Your task to perform on an android device: find which apps use the phone's location Image 0: 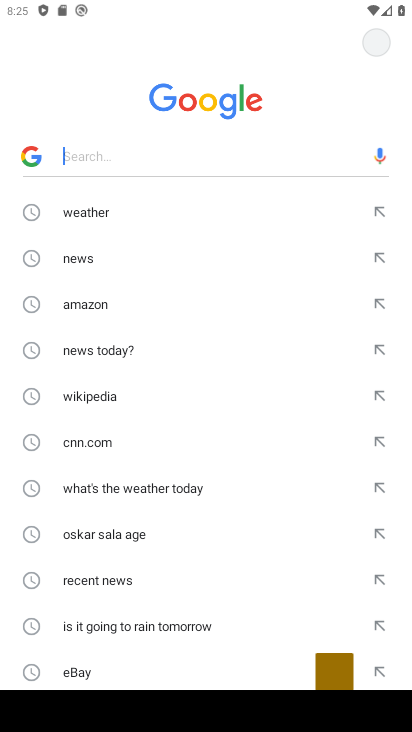
Step 0: press home button
Your task to perform on an android device: find which apps use the phone's location Image 1: 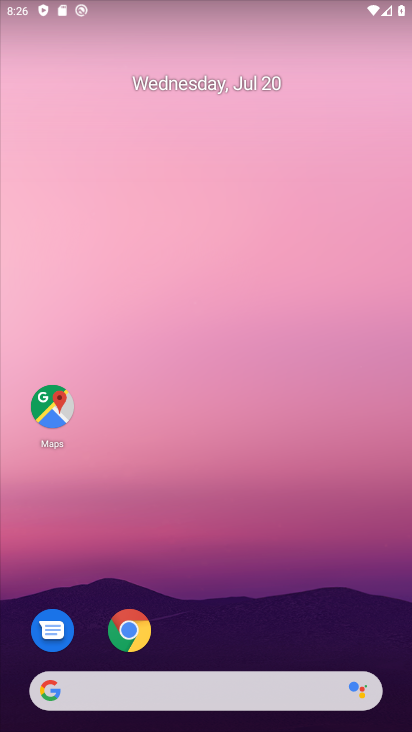
Step 1: drag from (225, 619) to (234, 93)
Your task to perform on an android device: find which apps use the phone's location Image 2: 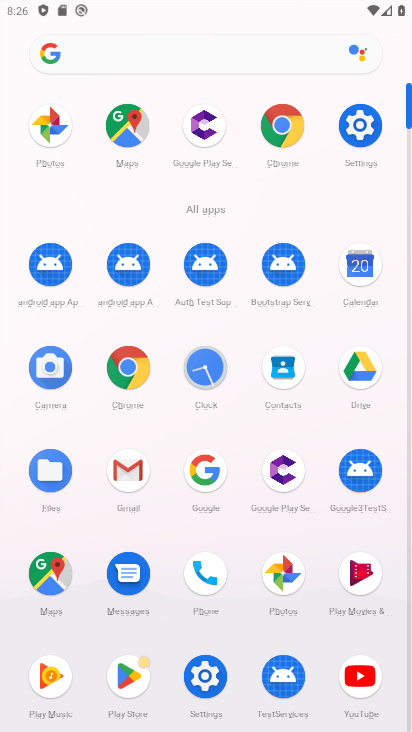
Step 2: click (352, 121)
Your task to perform on an android device: find which apps use the phone's location Image 3: 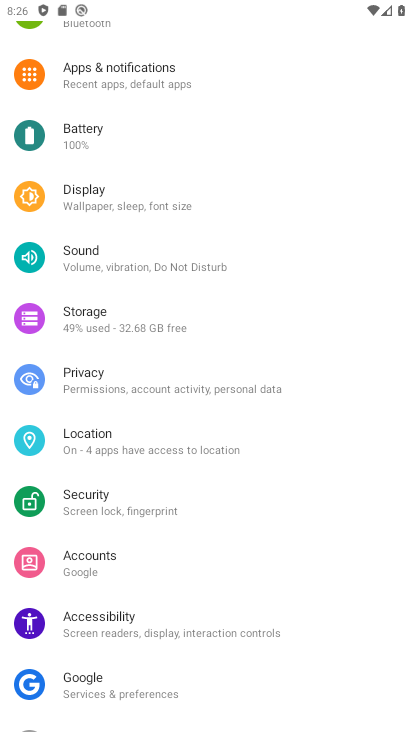
Step 3: click (117, 428)
Your task to perform on an android device: find which apps use the phone's location Image 4: 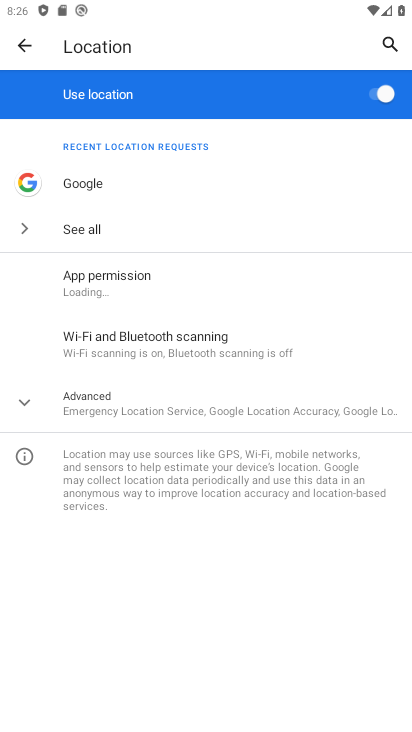
Step 4: click (91, 290)
Your task to perform on an android device: find which apps use the phone's location Image 5: 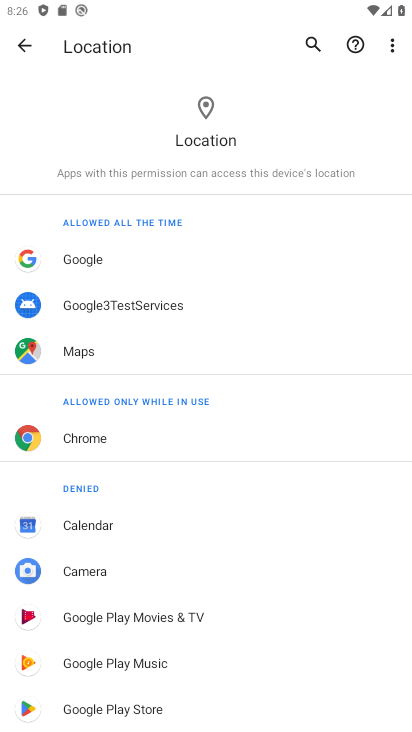
Step 5: task complete